Your task to perform on an android device: turn on sleep mode Image 0: 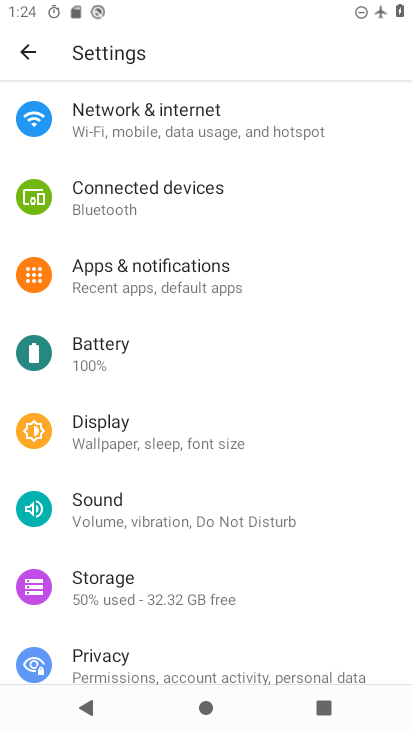
Step 0: click (228, 443)
Your task to perform on an android device: turn on sleep mode Image 1: 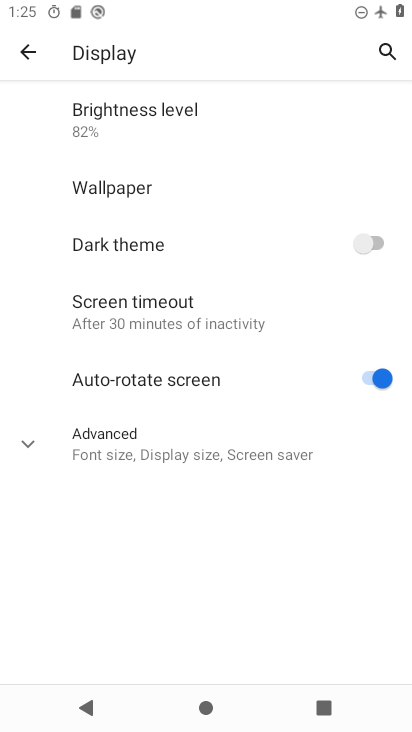
Step 1: click (33, 442)
Your task to perform on an android device: turn on sleep mode Image 2: 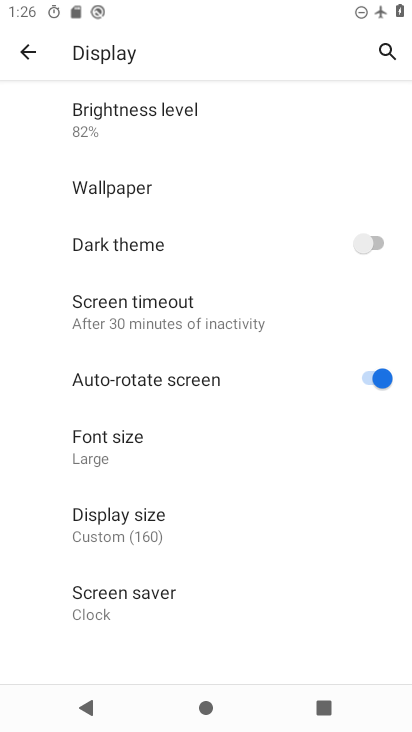
Step 2: task complete